Your task to perform on an android device: Go to display settings Image 0: 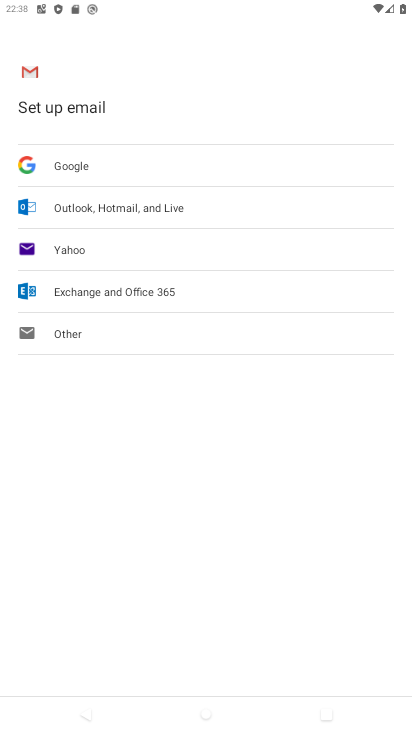
Step 0: type ""
Your task to perform on an android device: Go to display settings Image 1: 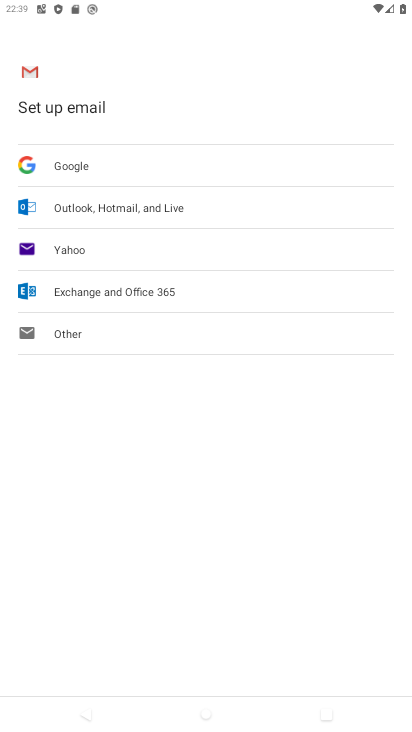
Step 1: press home button
Your task to perform on an android device: Go to display settings Image 2: 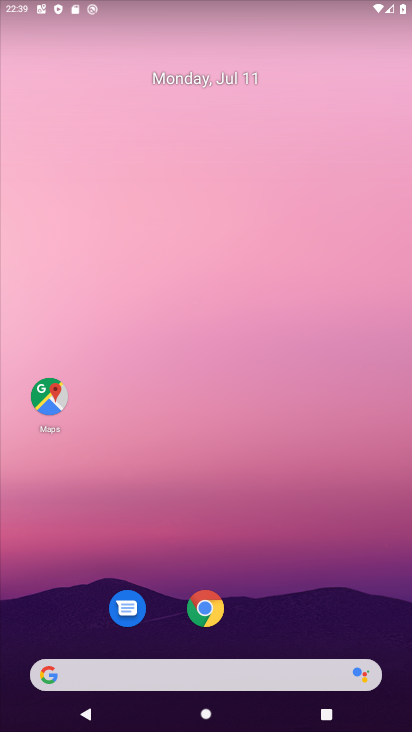
Step 2: drag from (32, 710) to (207, 105)
Your task to perform on an android device: Go to display settings Image 3: 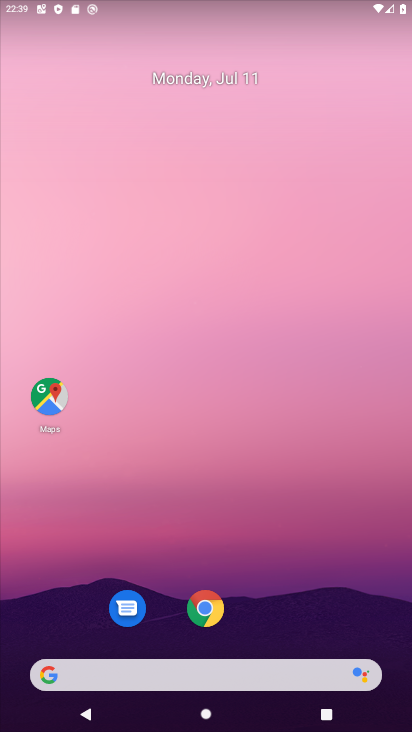
Step 3: drag from (45, 710) to (284, 78)
Your task to perform on an android device: Go to display settings Image 4: 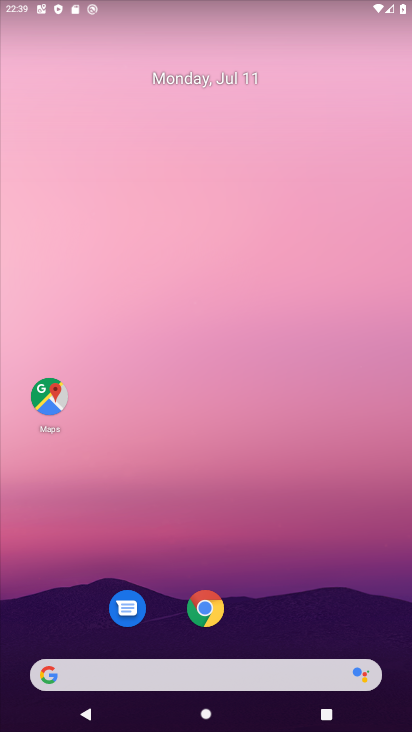
Step 4: drag from (38, 725) to (241, 64)
Your task to perform on an android device: Go to display settings Image 5: 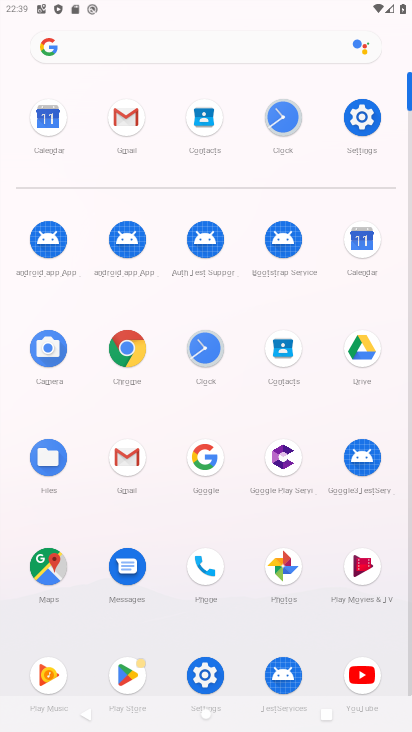
Step 5: click (203, 655)
Your task to perform on an android device: Go to display settings Image 6: 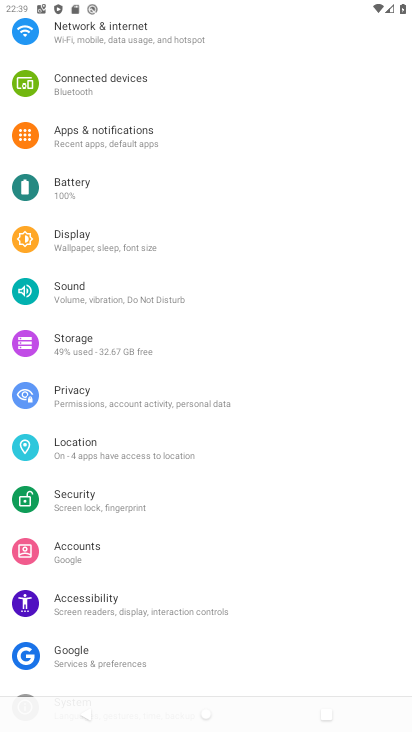
Step 6: click (93, 241)
Your task to perform on an android device: Go to display settings Image 7: 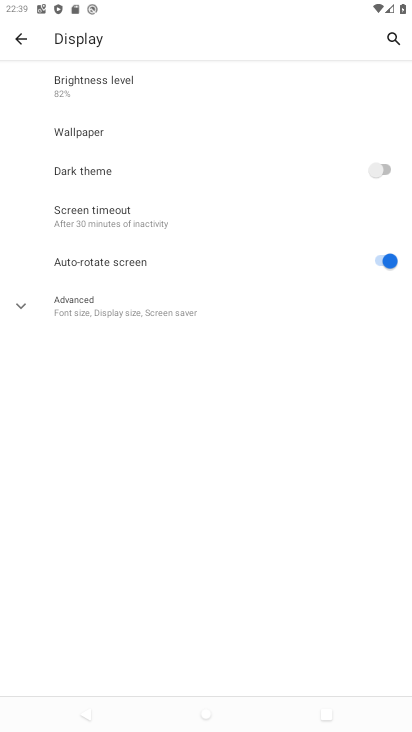
Step 7: task complete